Your task to perform on an android device: When is my next appointment? Image 0: 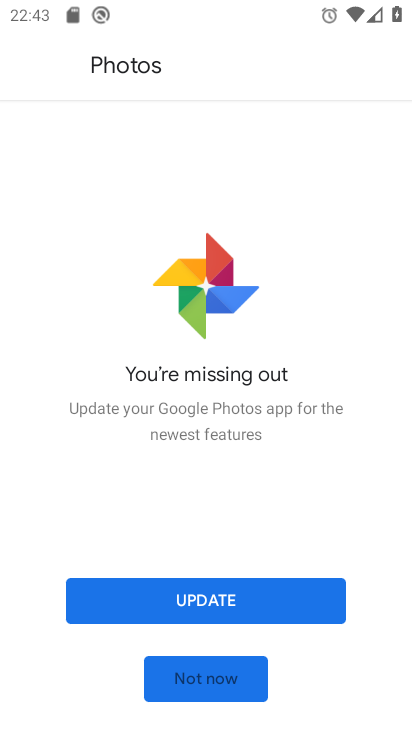
Step 0: press home button
Your task to perform on an android device: When is my next appointment? Image 1: 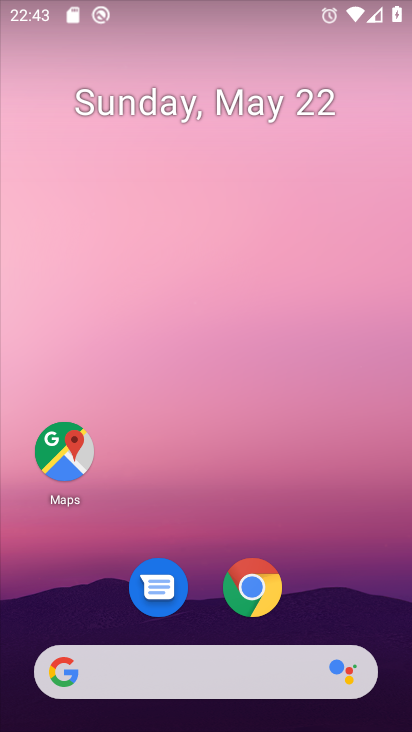
Step 1: drag from (197, 455) to (229, 12)
Your task to perform on an android device: When is my next appointment? Image 2: 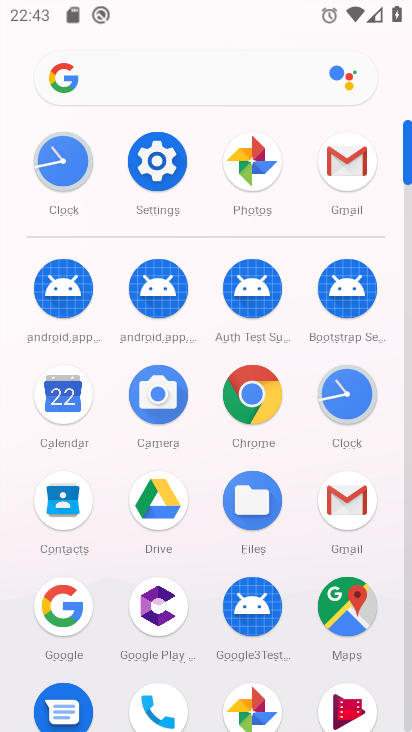
Step 2: click (64, 388)
Your task to perform on an android device: When is my next appointment? Image 3: 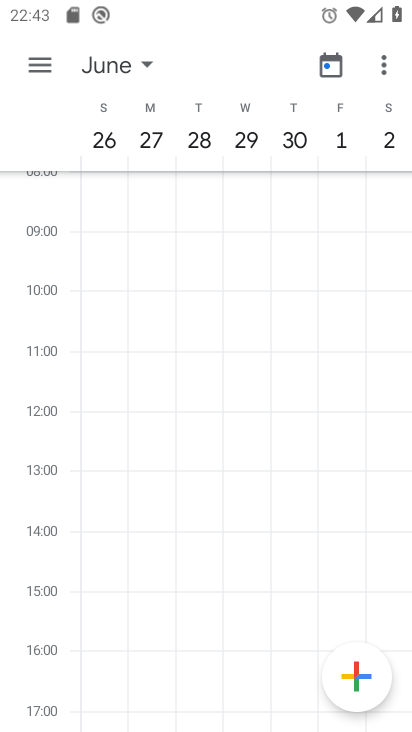
Step 3: drag from (112, 280) to (381, 400)
Your task to perform on an android device: When is my next appointment? Image 4: 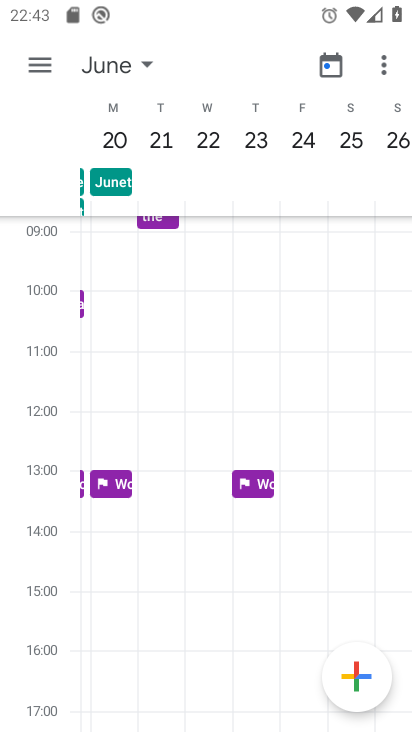
Step 4: drag from (114, 321) to (391, 352)
Your task to perform on an android device: When is my next appointment? Image 5: 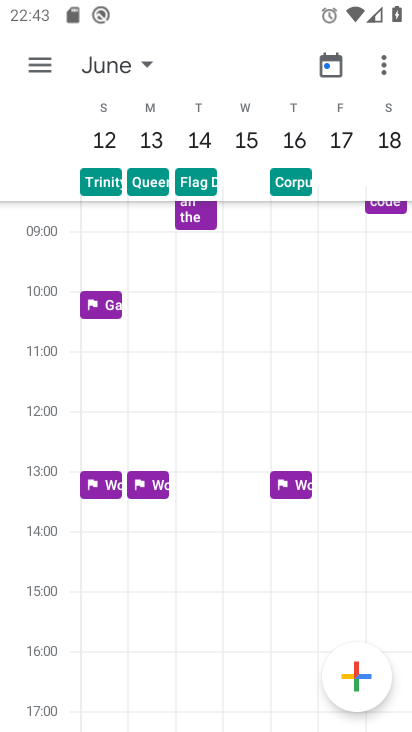
Step 5: drag from (90, 341) to (397, 368)
Your task to perform on an android device: When is my next appointment? Image 6: 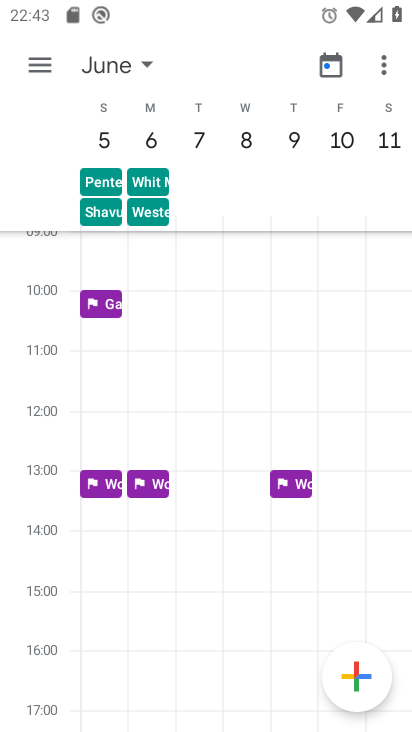
Step 6: drag from (84, 365) to (385, 398)
Your task to perform on an android device: When is my next appointment? Image 7: 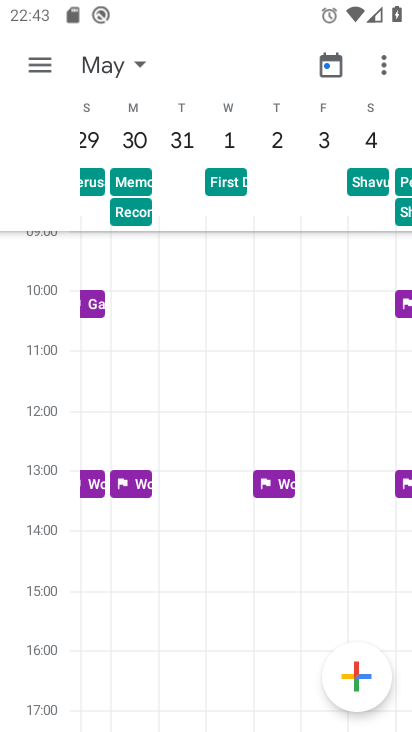
Step 7: drag from (99, 370) to (394, 448)
Your task to perform on an android device: When is my next appointment? Image 8: 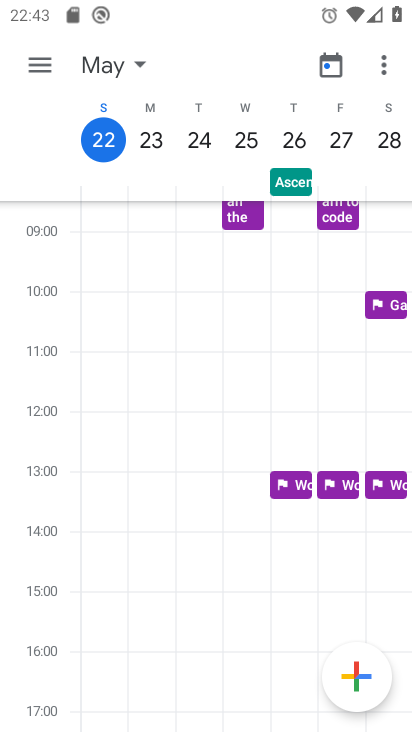
Step 8: click (102, 141)
Your task to perform on an android device: When is my next appointment? Image 9: 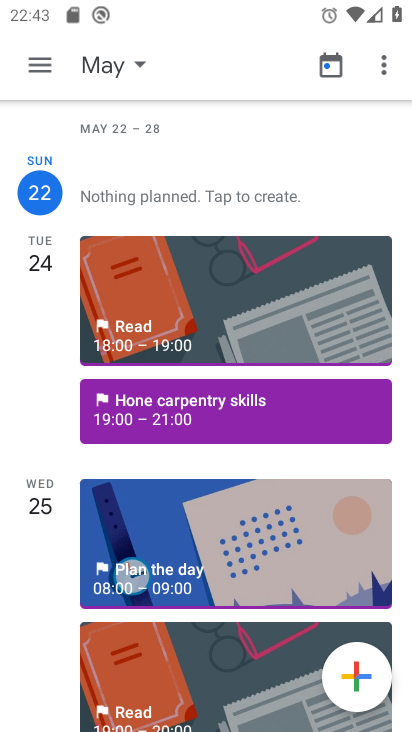
Step 9: task complete